Your task to perform on an android device: turn off airplane mode Image 0: 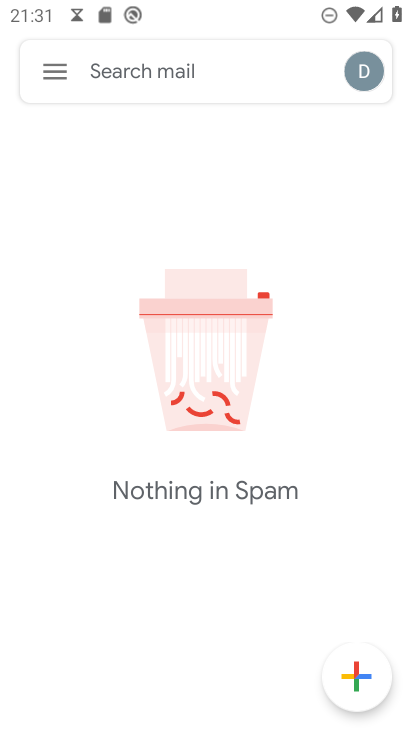
Step 0: press home button
Your task to perform on an android device: turn off airplane mode Image 1: 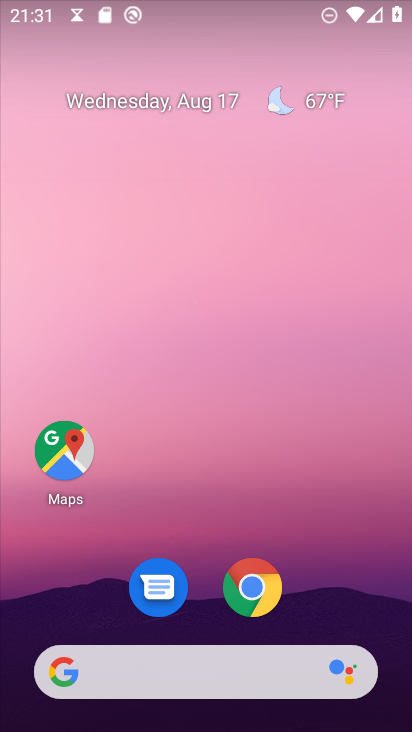
Step 1: drag from (10, 693) to (260, 227)
Your task to perform on an android device: turn off airplane mode Image 2: 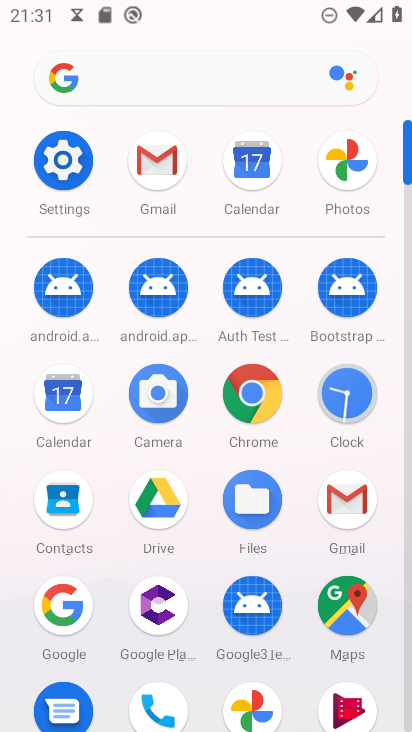
Step 2: click (79, 169)
Your task to perform on an android device: turn off airplane mode Image 3: 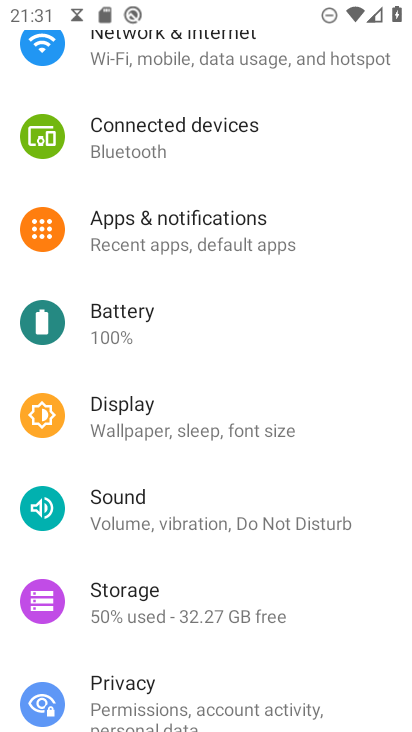
Step 3: click (231, 50)
Your task to perform on an android device: turn off airplane mode Image 4: 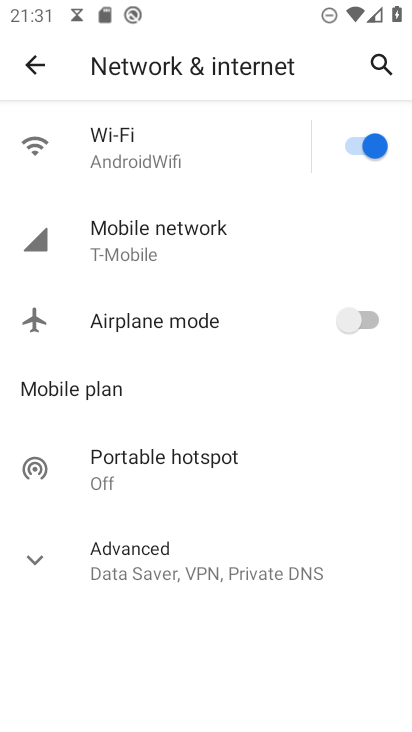
Step 4: task complete